Your task to perform on an android device: Clear the shopping cart on ebay. Add "dell xps" to the cart on ebay, then select checkout. Image 0: 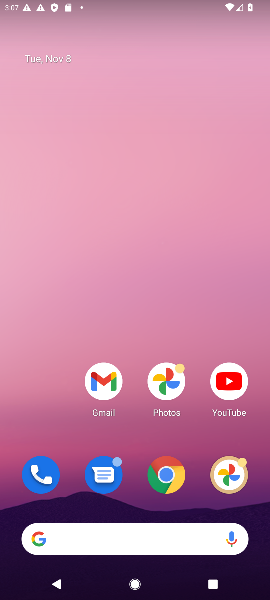
Step 0: drag from (105, 542) to (89, 189)
Your task to perform on an android device: Clear the shopping cart on ebay. Add "dell xps" to the cart on ebay, then select checkout. Image 1: 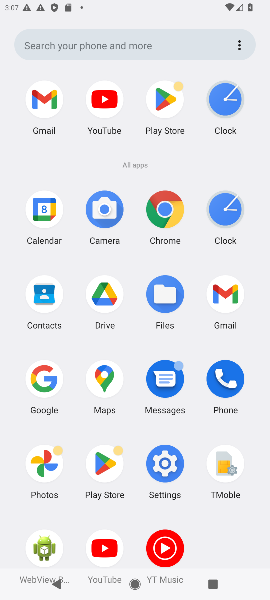
Step 1: click (49, 366)
Your task to perform on an android device: Clear the shopping cart on ebay. Add "dell xps" to the cart on ebay, then select checkout. Image 2: 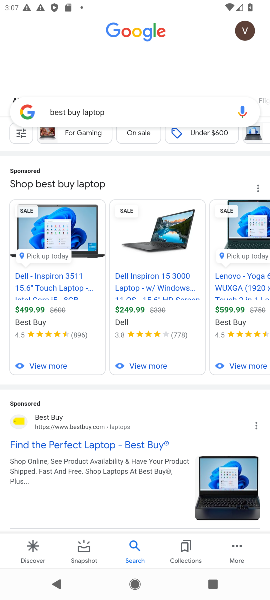
Step 2: click (114, 103)
Your task to perform on an android device: Clear the shopping cart on ebay. Add "dell xps" to the cart on ebay, then select checkout. Image 3: 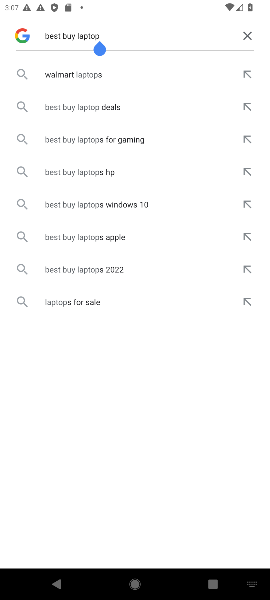
Step 3: click (246, 37)
Your task to perform on an android device: Clear the shopping cart on ebay. Add "dell xps" to the cart on ebay, then select checkout. Image 4: 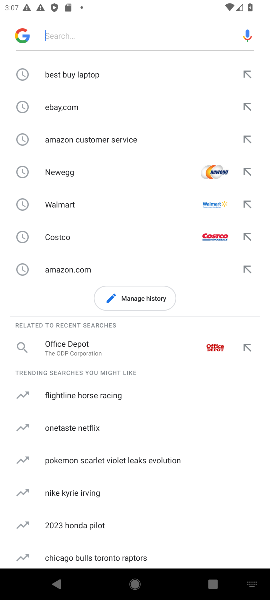
Step 4: click (78, 35)
Your task to perform on an android device: Clear the shopping cart on ebay. Add "dell xps" to the cart on ebay, then select checkout. Image 5: 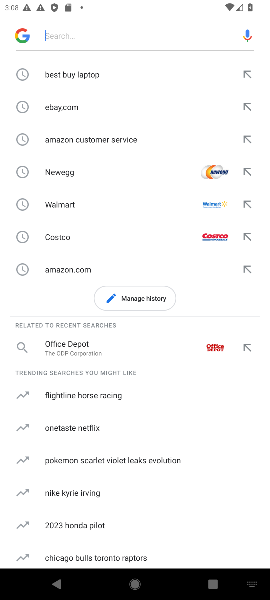
Step 5: click (153, 33)
Your task to perform on an android device: Clear the shopping cart on ebay. Add "dell xps" to the cart on ebay, then select checkout. Image 6: 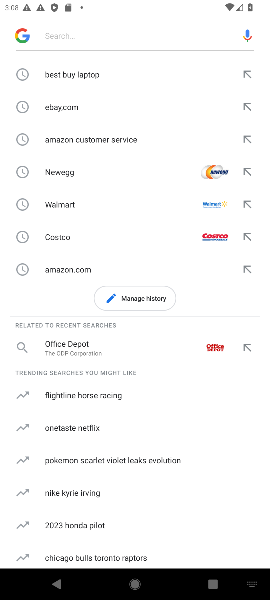
Step 6: type "ebay "
Your task to perform on an android device: Clear the shopping cart on ebay. Add "dell xps" to the cart on ebay, then select checkout. Image 7: 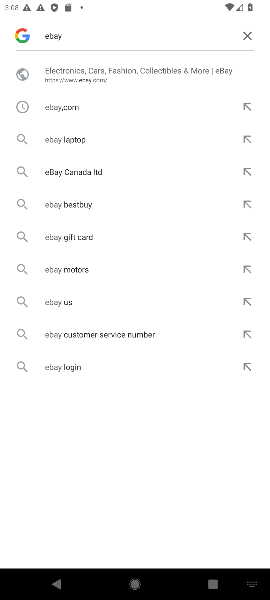
Step 7: click (68, 107)
Your task to perform on an android device: Clear the shopping cart on ebay. Add "dell xps" to the cart on ebay, then select checkout. Image 8: 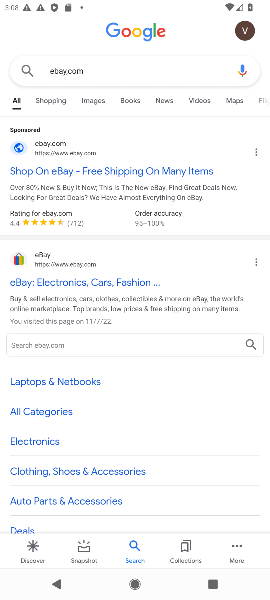
Step 8: click (98, 57)
Your task to perform on an android device: Clear the shopping cart on ebay. Add "dell xps" to the cart on ebay, then select checkout. Image 9: 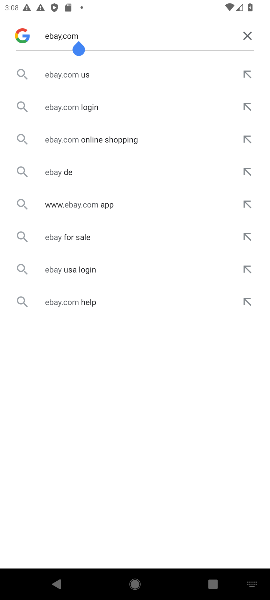
Step 9: click (246, 36)
Your task to perform on an android device: Clear the shopping cart on ebay. Add "dell xps" to the cart on ebay, then select checkout. Image 10: 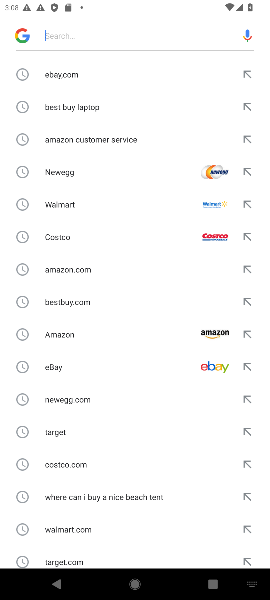
Step 10: click (96, 26)
Your task to perform on an android device: Clear the shopping cart on ebay. Add "dell xps" to the cart on ebay, then select checkout. Image 11: 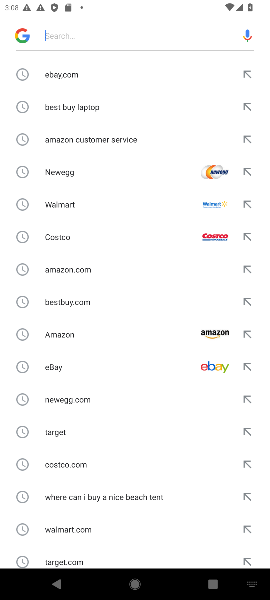
Step 11: type "ebay "
Your task to perform on an android device: Clear the shopping cart on ebay. Add "dell xps" to the cart on ebay, then select checkout. Image 12: 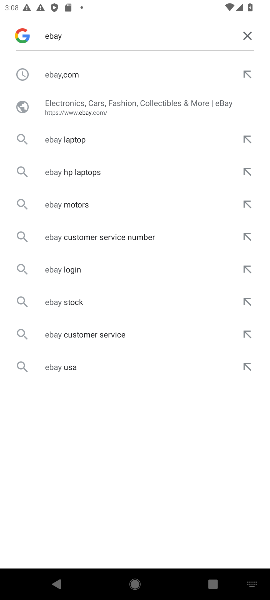
Step 12: click (86, 71)
Your task to perform on an android device: Clear the shopping cart on ebay. Add "dell xps" to the cart on ebay, then select checkout. Image 13: 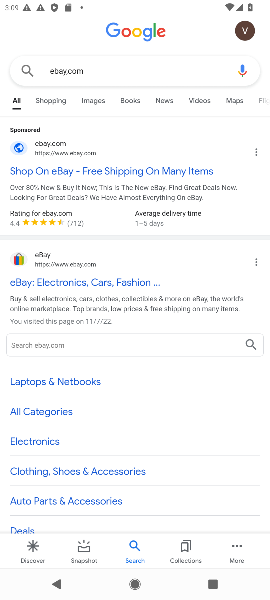
Step 13: click (12, 263)
Your task to perform on an android device: Clear the shopping cart on ebay. Add "dell xps" to the cart on ebay, then select checkout. Image 14: 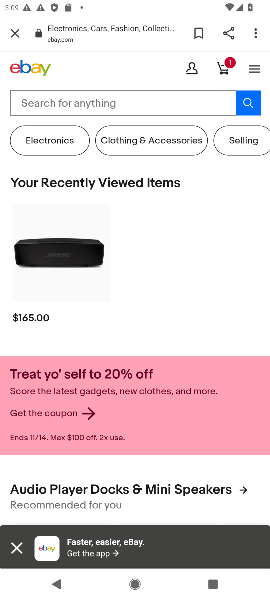
Step 14: click (165, 100)
Your task to perform on an android device: Clear the shopping cart on ebay. Add "dell xps" to the cart on ebay, then select checkout. Image 15: 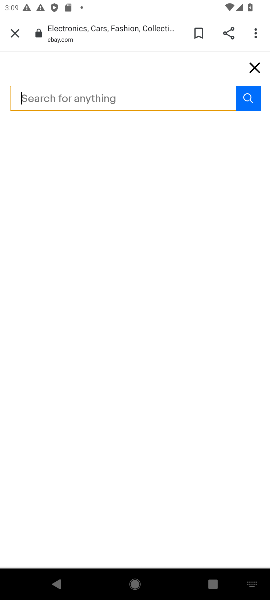
Step 15: type "dell xps" "
Your task to perform on an android device: Clear the shopping cart on ebay. Add "dell xps" to the cart on ebay, then select checkout. Image 16: 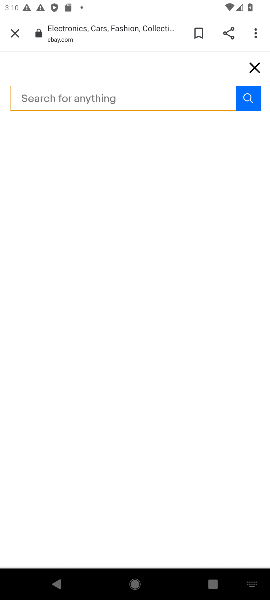
Step 16: click (37, 95)
Your task to perform on an android device: Clear the shopping cart on ebay. Add "dell xps" to the cart on ebay, then select checkout. Image 17: 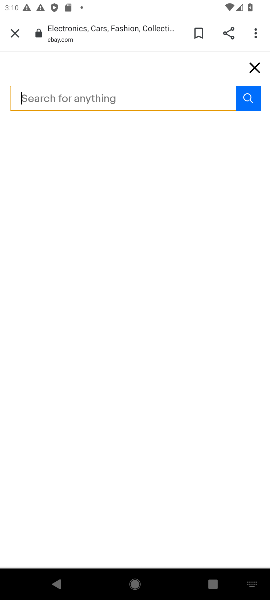
Step 17: click (37, 95)
Your task to perform on an android device: Clear the shopping cart on ebay. Add "dell xps" to the cart on ebay, then select checkout. Image 18: 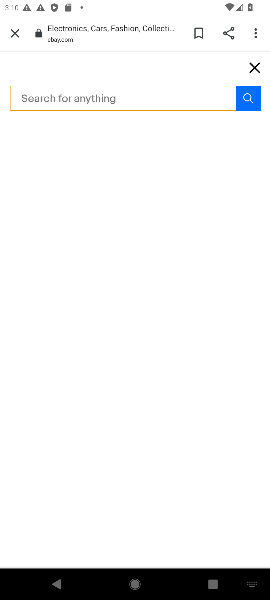
Step 18: type ""dell xps" "
Your task to perform on an android device: Clear the shopping cart on ebay. Add "dell xps" to the cart on ebay, then select checkout. Image 19: 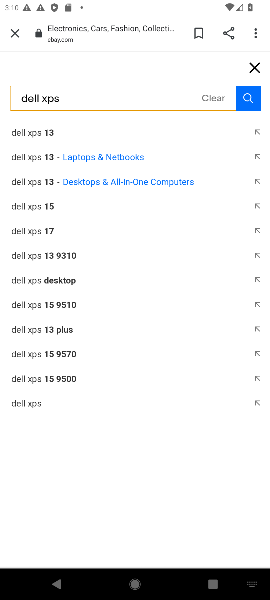
Step 19: click (46, 129)
Your task to perform on an android device: Clear the shopping cart on ebay. Add "dell xps" to the cart on ebay, then select checkout. Image 20: 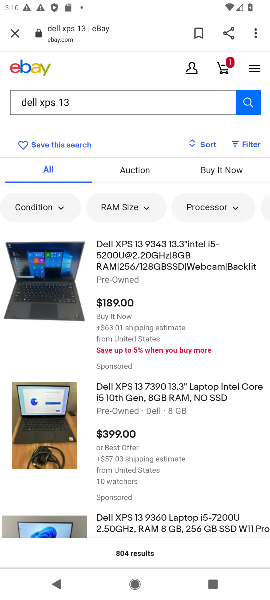
Step 20: click (250, 103)
Your task to perform on an android device: Clear the shopping cart on ebay. Add "dell xps" to the cart on ebay, then select checkout. Image 21: 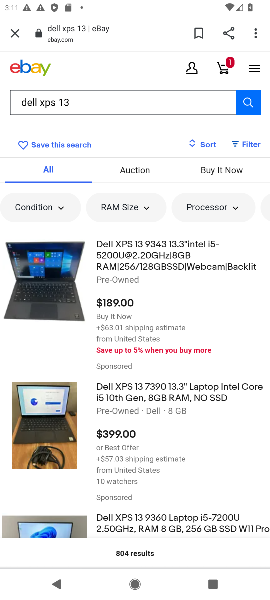
Step 21: click (130, 257)
Your task to perform on an android device: Clear the shopping cart on ebay. Add "dell xps" to the cart on ebay, then select checkout. Image 22: 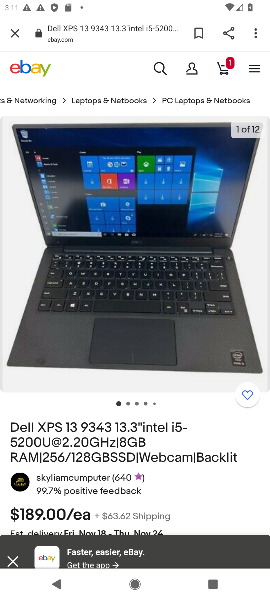
Step 22: drag from (184, 513) to (194, 264)
Your task to perform on an android device: Clear the shopping cart on ebay. Add "dell xps" to the cart on ebay, then select checkout. Image 23: 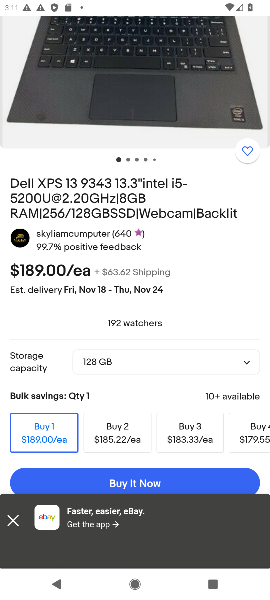
Step 23: click (10, 522)
Your task to perform on an android device: Clear the shopping cart on ebay. Add "dell xps" to the cart on ebay, then select checkout. Image 24: 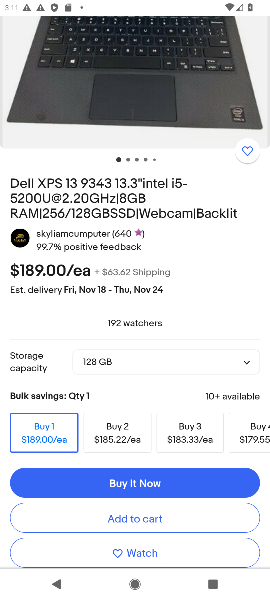
Step 24: click (134, 514)
Your task to perform on an android device: Clear the shopping cart on ebay. Add "dell xps" to the cart on ebay, then select checkout. Image 25: 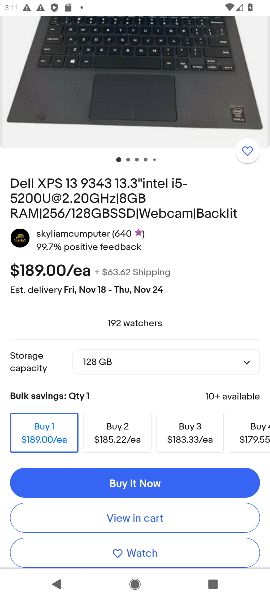
Step 25: task complete